Your task to perform on an android device: change the clock display to analog Image 0: 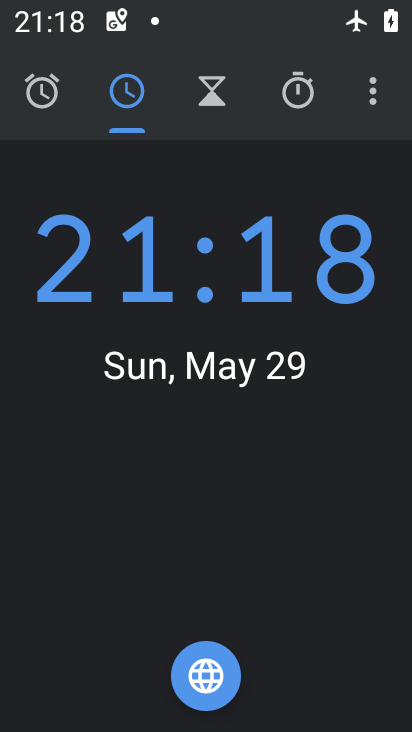
Step 0: press back button
Your task to perform on an android device: change the clock display to analog Image 1: 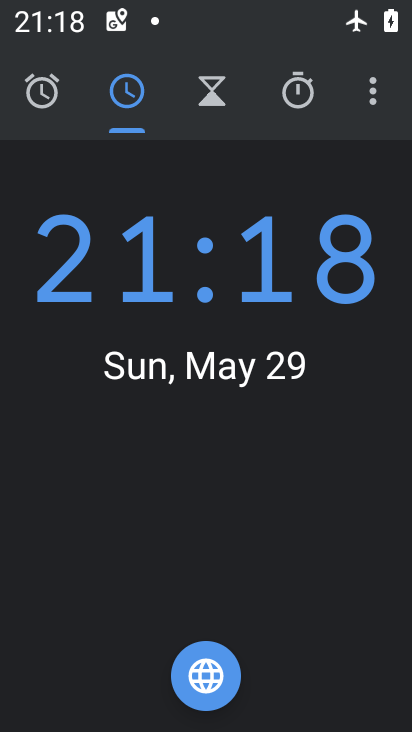
Step 1: press back button
Your task to perform on an android device: change the clock display to analog Image 2: 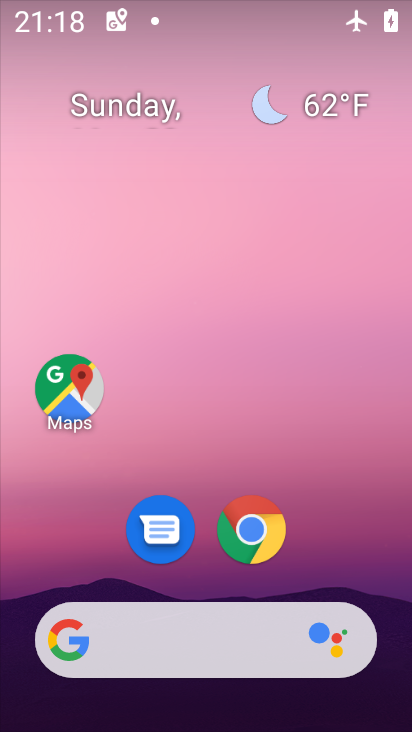
Step 2: drag from (252, 704) to (138, 107)
Your task to perform on an android device: change the clock display to analog Image 3: 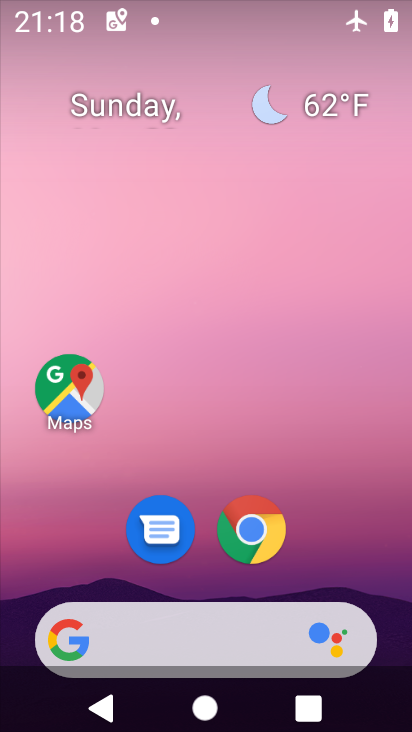
Step 3: drag from (187, 588) to (79, 190)
Your task to perform on an android device: change the clock display to analog Image 4: 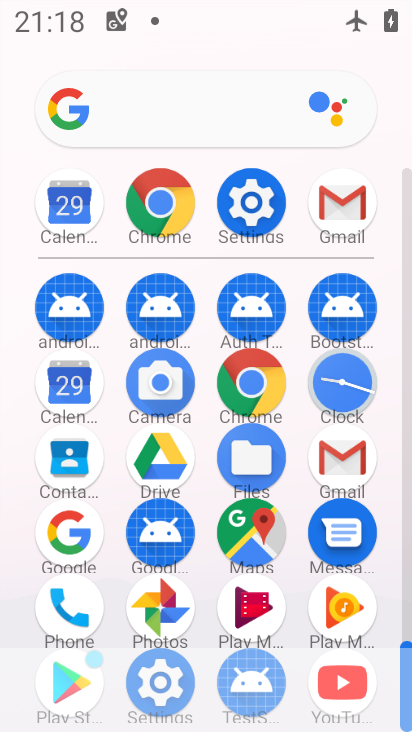
Step 4: click (323, 410)
Your task to perform on an android device: change the clock display to analog Image 5: 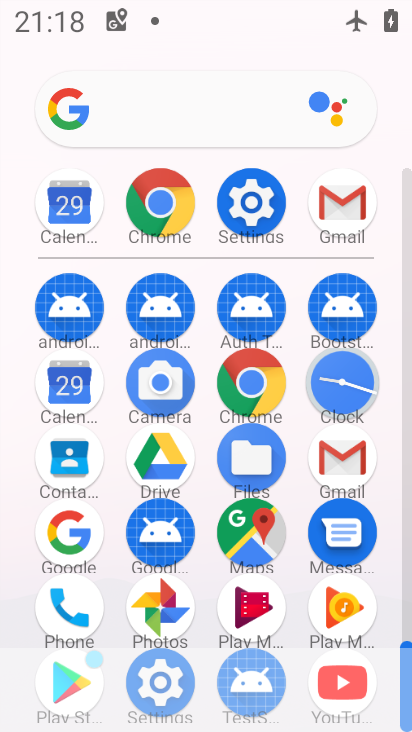
Step 5: click (342, 379)
Your task to perform on an android device: change the clock display to analog Image 6: 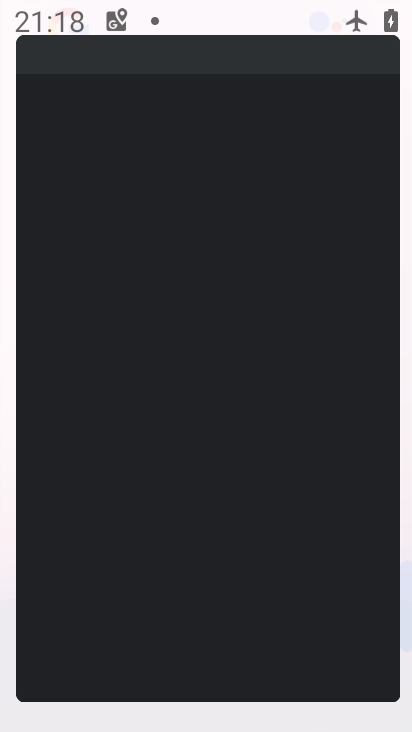
Step 6: click (342, 386)
Your task to perform on an android device: change the clock display to analog Image 7: 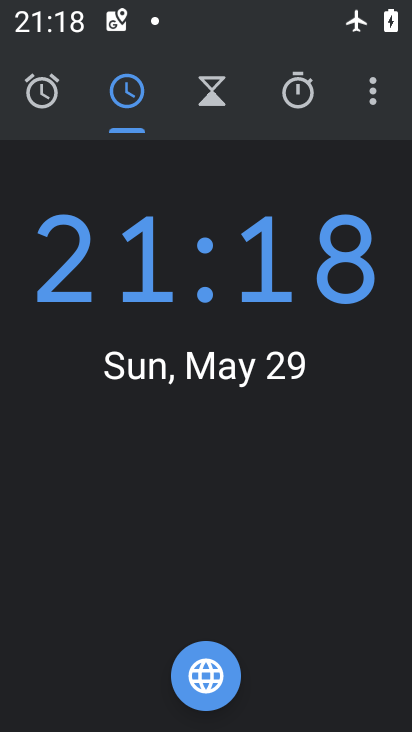
Step 7: click (367, 88)
Your task to perform on an android device: change the clock display to analog Image 8: 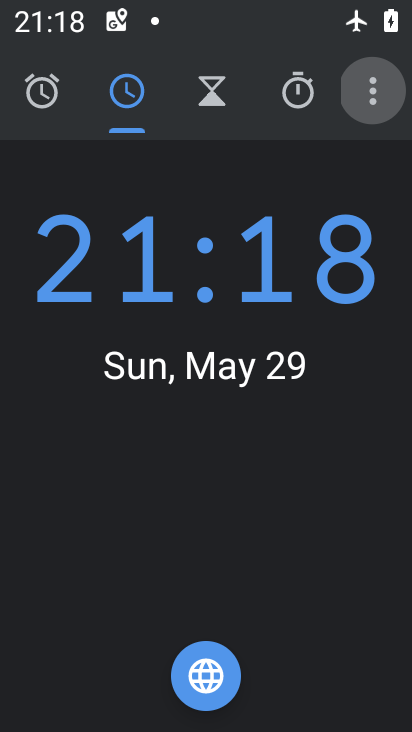
Step 8: click (367, 88)
Your task to perform on an android device: change the clock display to analog Image 9: 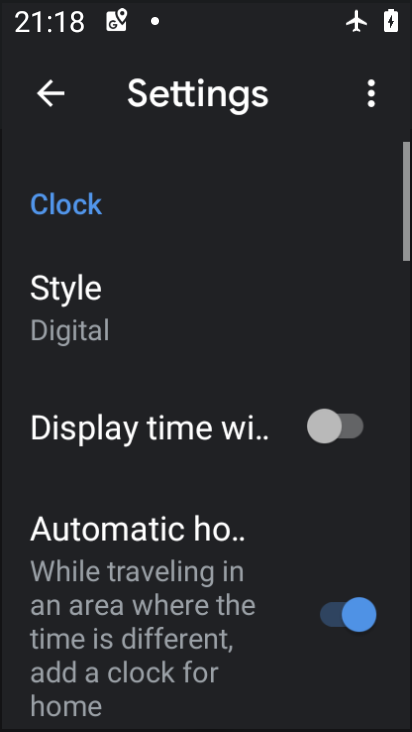
Step 9: click (367, 88)
Your task to perform on an android device: change the clock display to analog Image 10: 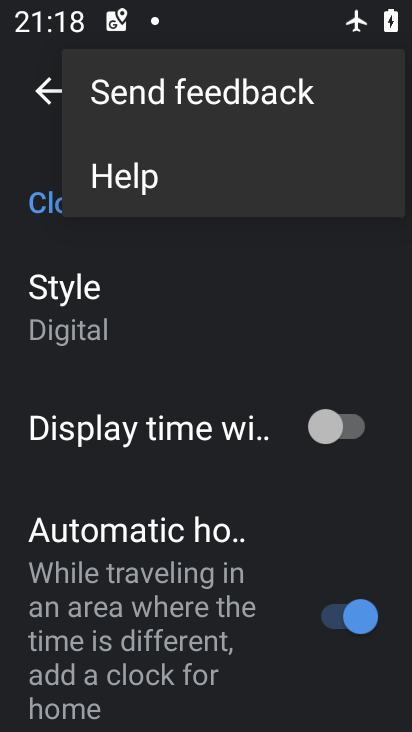
Step 10: click (158, 316)
Your task to perform on an android device: change the clock display to analog Image 11: 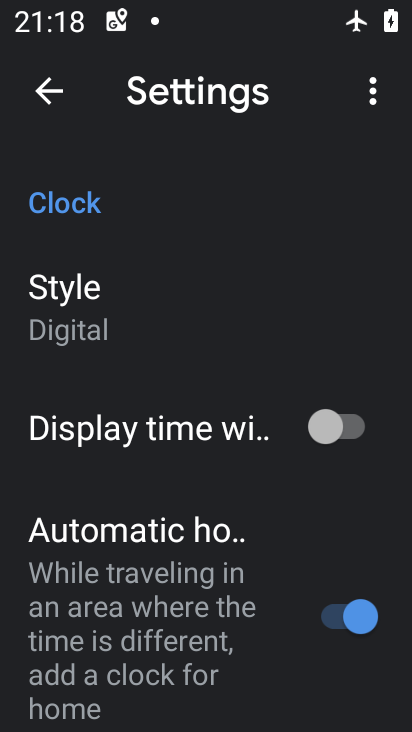
Step 11: click (158, 314)
Your task to perform on an android device: change the clock display to analog Image 12: 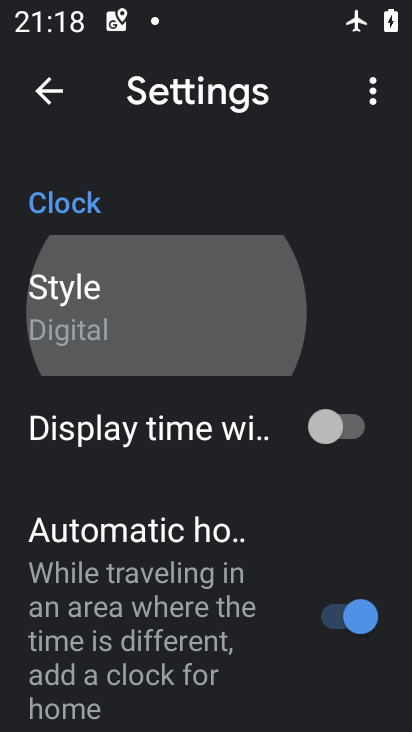
Step 12: click (165, 275)
Your task to perform on an android device: change the clock display to analog Image 13: 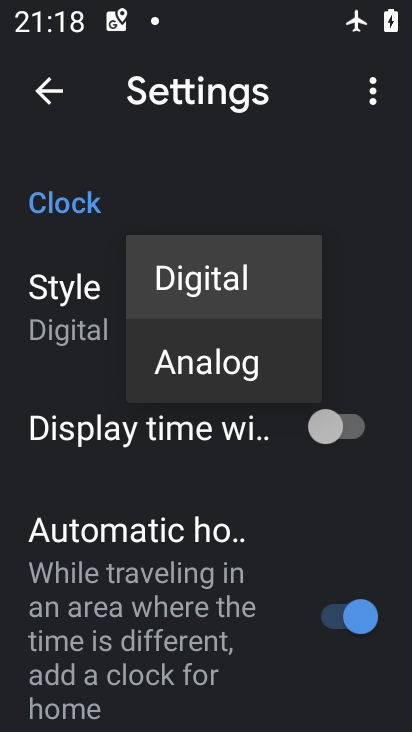
Step 13: click (215, 365)
Your task to perform on an android device: change the clock display to analog Image 14: 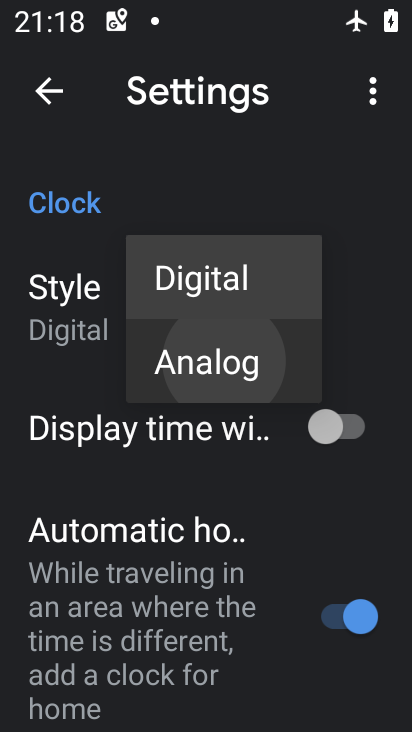
Step 14: click (215, 365)
Your task to perform on an android device: change the clock display to analog Image 15: 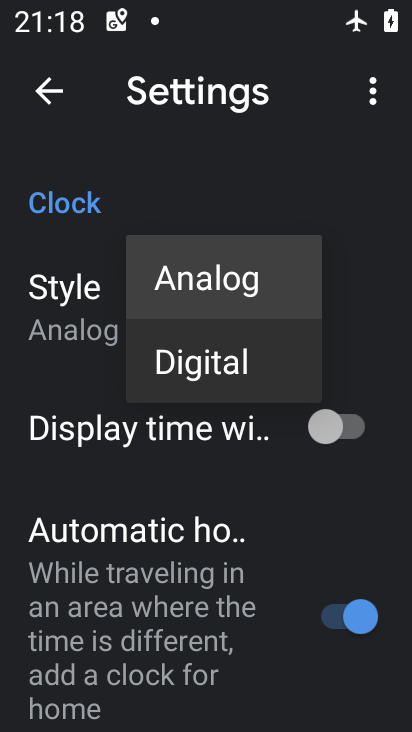
Step 15: click (198, 146)
Your task to perform on an android device: change the clock display to analog Image 16: 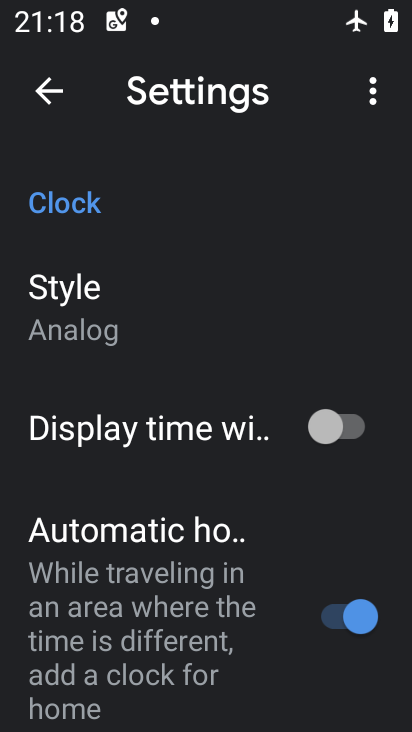
Step 16: task complete